Your task to perform on an android device: turn on sleep mode Image 0: 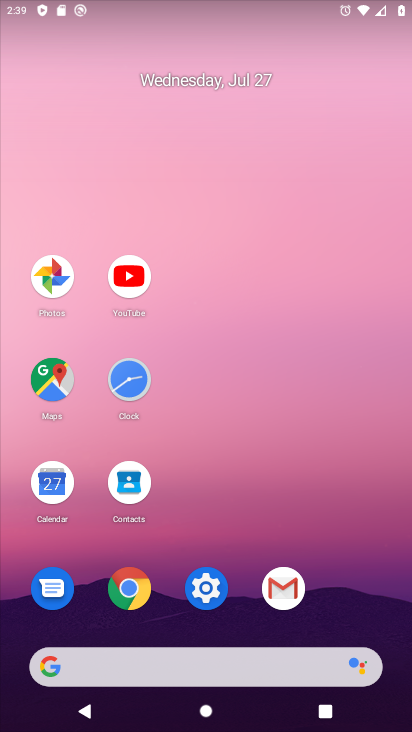
Step 0: click (206, 586)
Your task to perform on an android device: turn on sleep mode Image 1: 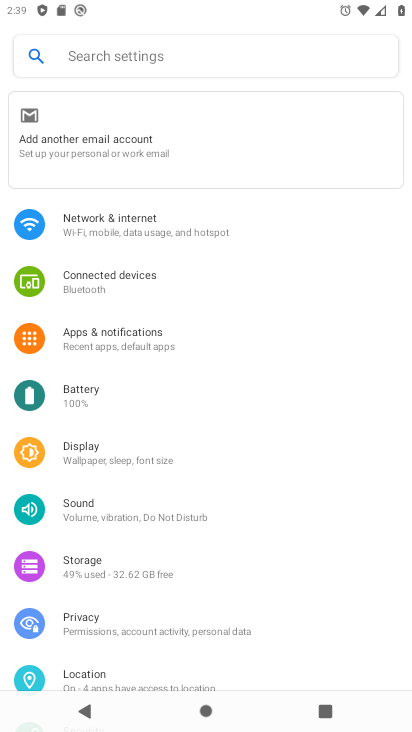
Step 1: click (80, 450)
Your task to perform on an android device: turn on sleep mode Image 2: 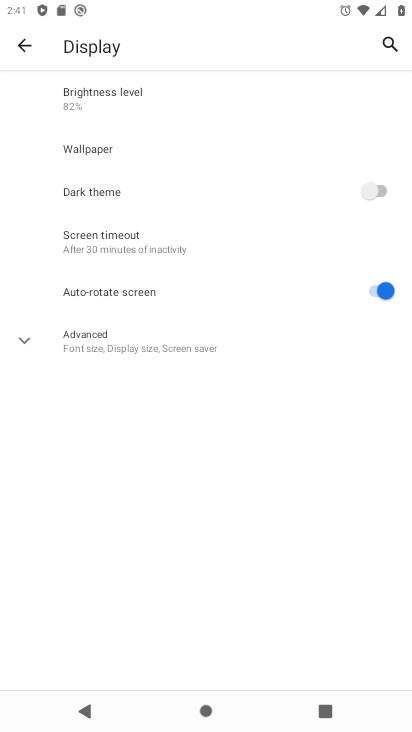
Step 2: task complete